Your task to perform on an android device: Open display settings Image 0: 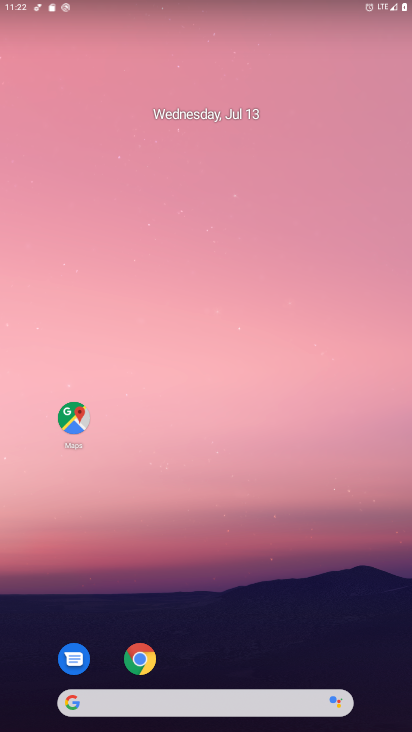
Step 0: press home button
Your task to perform on an android device: Open display settings Image 1: 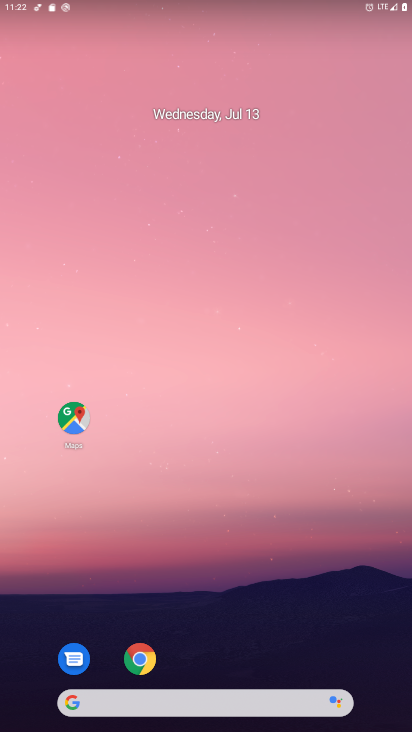
Step 1: drag from (210, 159) to (212, 6)
Your task to perform on an android device: Open display settings Image 2: 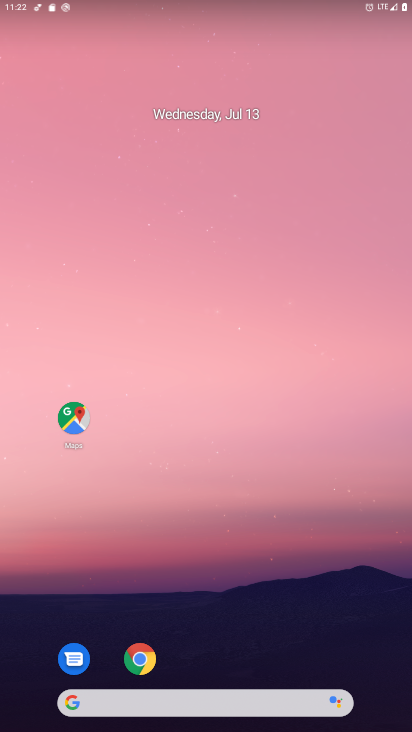
Step 2: drag from (215, 645) to (265, 51)
Your task to perform on an android device: Open display settings Image 3: 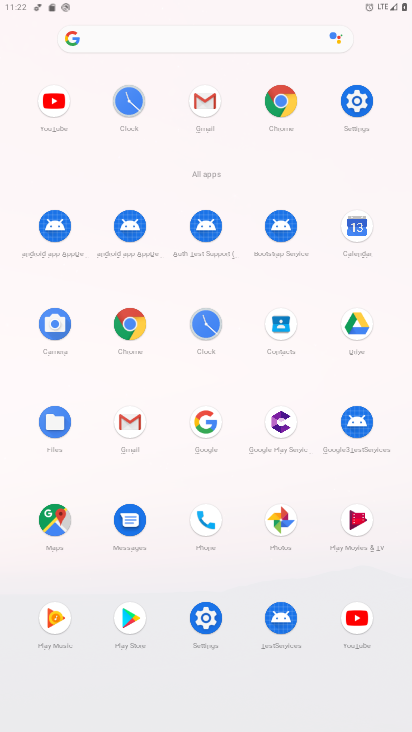
Step 3: click (344, 101)
Your task to perform on an android device: Open display settings Image 4: 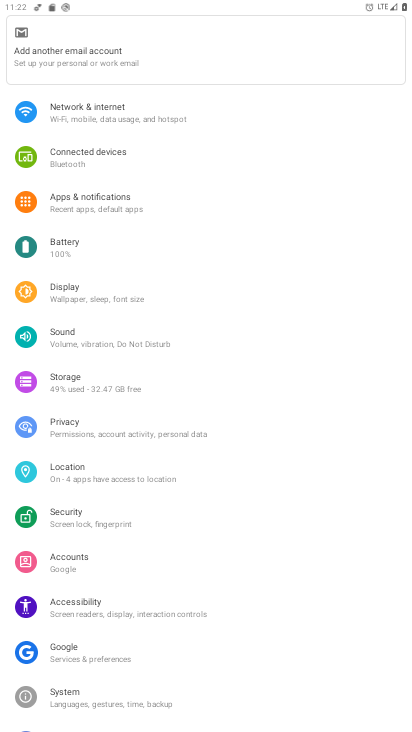
Step 4: click (68, 295)
Your task to perform on an android device: Open display settings Image 5: 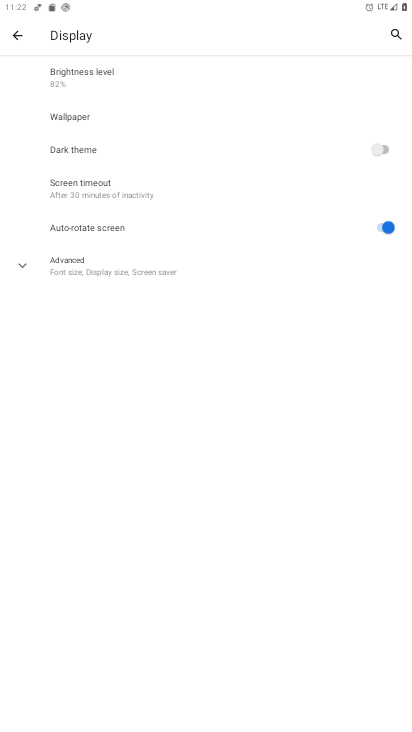
Step 5: click (25, 264)
Your task to perform on an android device: Open display settings Image 6: 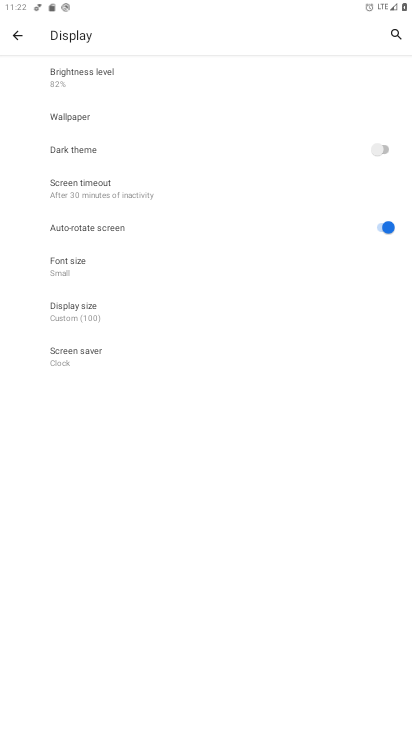
Step 6: task complete